Your task to perform on an android device: all mails in gmail Image 0: 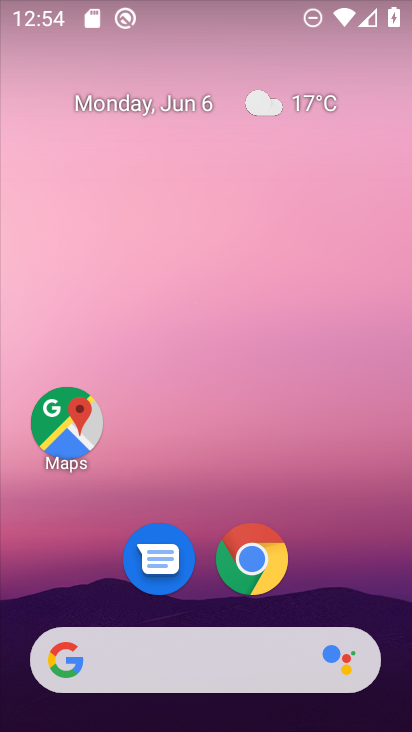
Step 0: drag from (262, 678) to (254, 106)
Your task to perform on an android device: all mails in gmail Image 1: 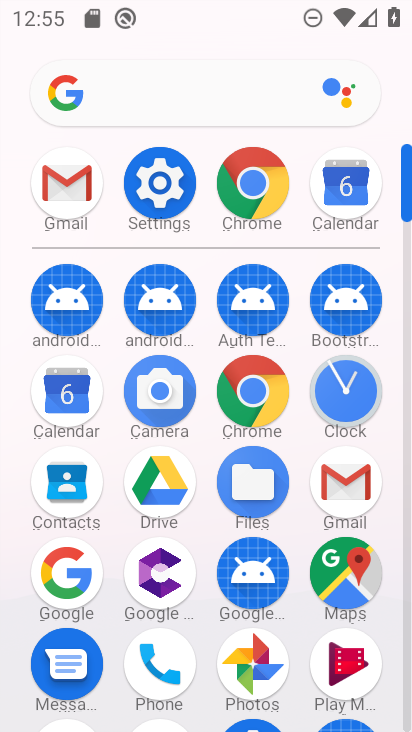
Step 1: click (352, 478)
Your task to perform on an android device: all mails in gmail Image 2: 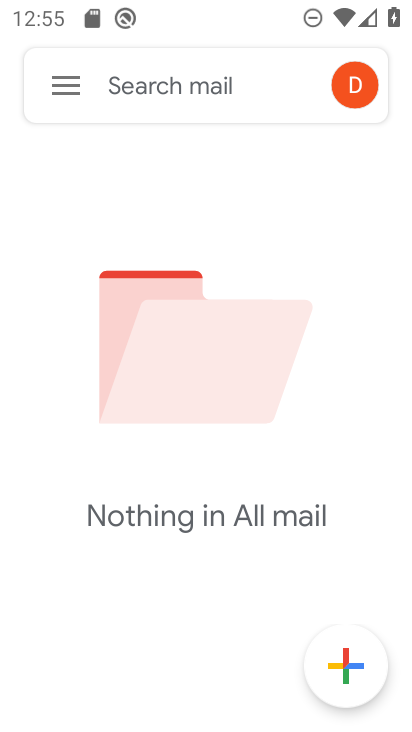
Step 2: task complete